Your task to perform on an android device: allow notifications from all sites in the chrome app Image 0: 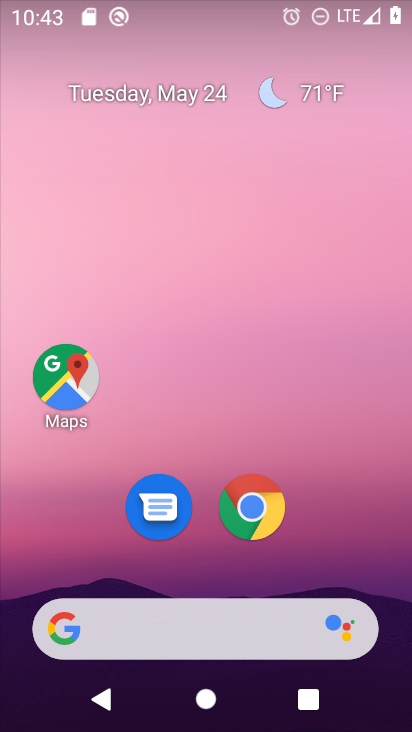
Step 0: click (252, 511)
Your task to perform on an android device: allow notifications from all sites in the chrome app Image 1: 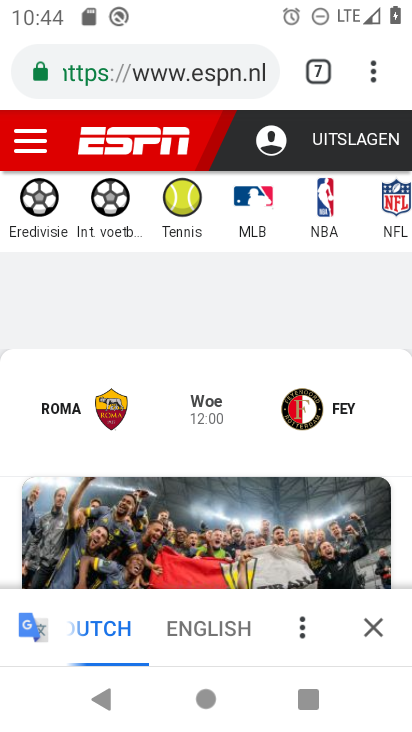
Step 1: click (374, 77)
Your task to perform on an android device: allow notifications from all sites in the chrome app Image 2: 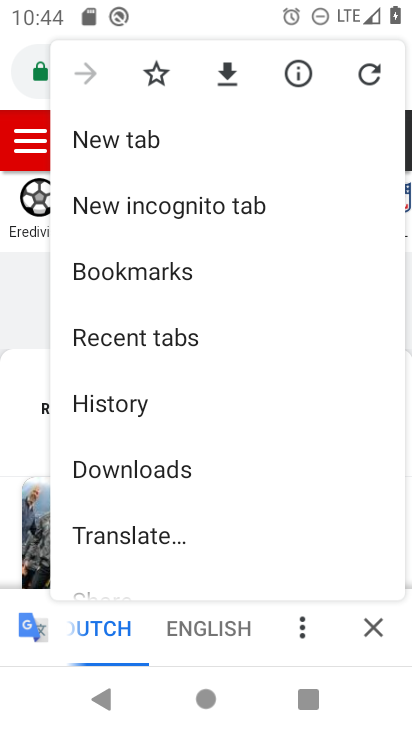
Step 2: drag from (152, 555) to (163, 185)
Your task to perform on an android device: allow notifications from all sites in the chrome app Image 3: 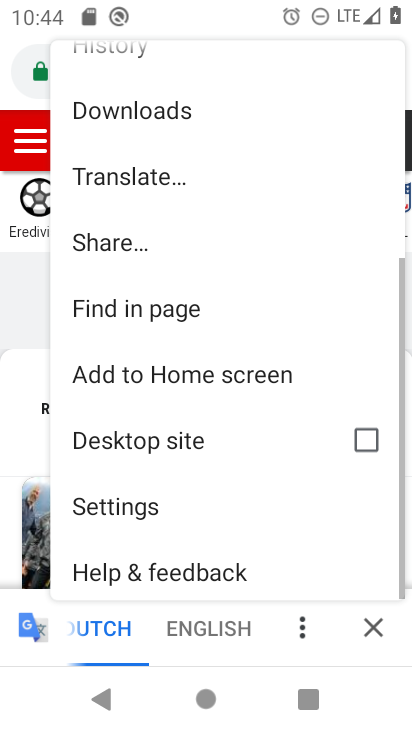
Step 3: click (139, 508)
Your task to perform on an android device: allow notifications from all sites in the chrome app Image 4: 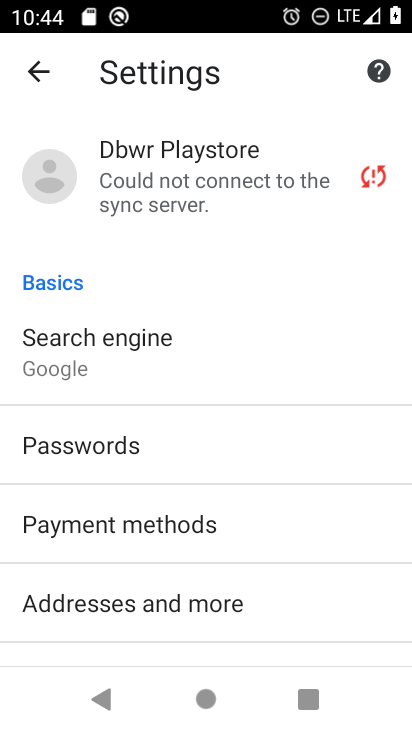
Step 4: drag from (146, 617) to (163, 287)
Your task to perform on an android device: allow notifications from all sites in the chrome app Image 5: 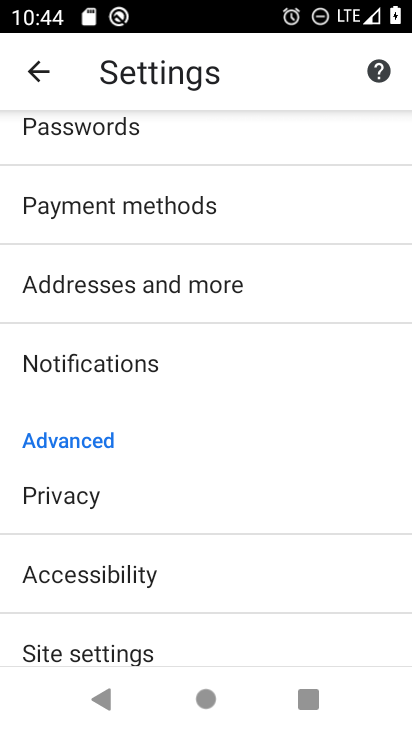
Step 5: drag from (93, 615) to (120, 271)
Your task to perform on an android device: allow notifications from all sites in the chrome app Image 6: 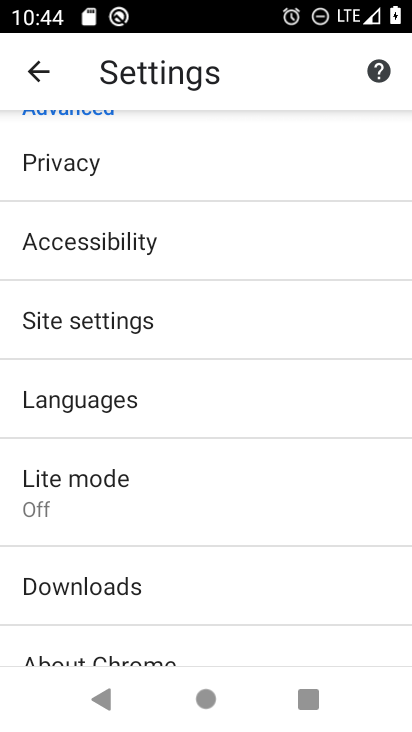
Step 6: click (94, 326)
Your task to perform on an android device: allow notifications from all sites in the chrome app Image 7: 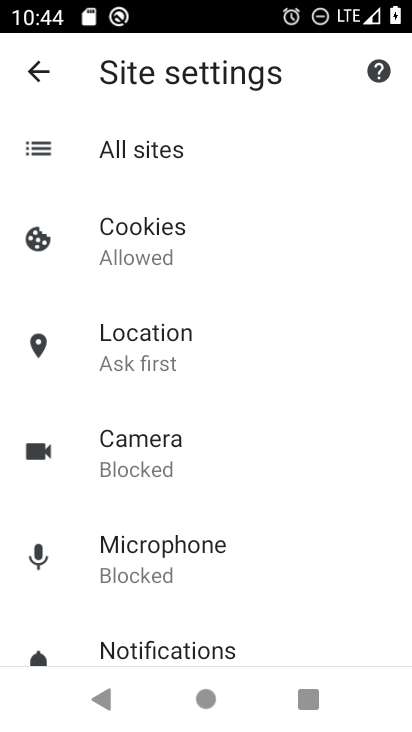
Step 7: click (149, 640)
Your task to perform on an android device: allow notifications from all sites in the chrome app Image 8: 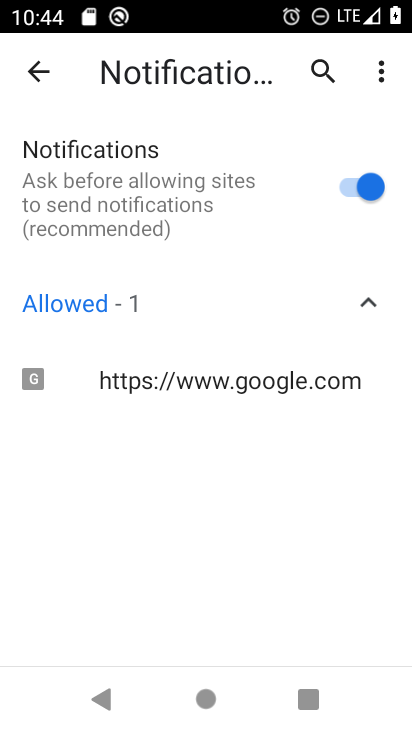
Step 8: task complete